Your task to perform on an android device: allow cookies in the chrome app Image 0: 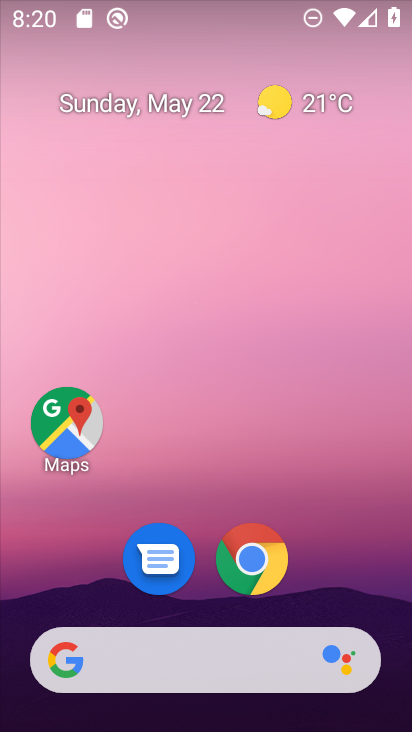
Step 0: drag from (227, 698) to (243, 371)
Your task to perform on an android device: allow cookies in the chrome app Image 1: 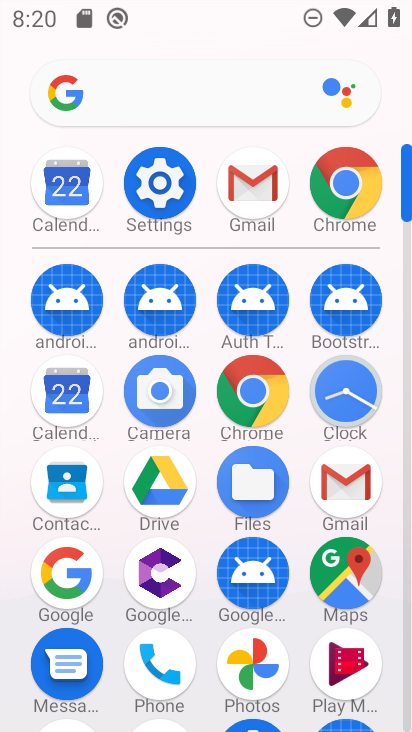
Step 1: click (355, 177)
Your task to perform on an android device: allow cookies in the chrome app Image 2: 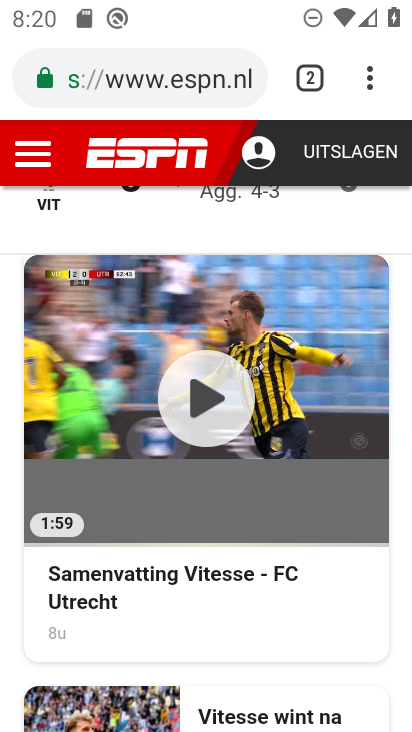
Step 2: click (363, 77)
Your task to perform on an android device: allow cookies in the chrome app Image 3: 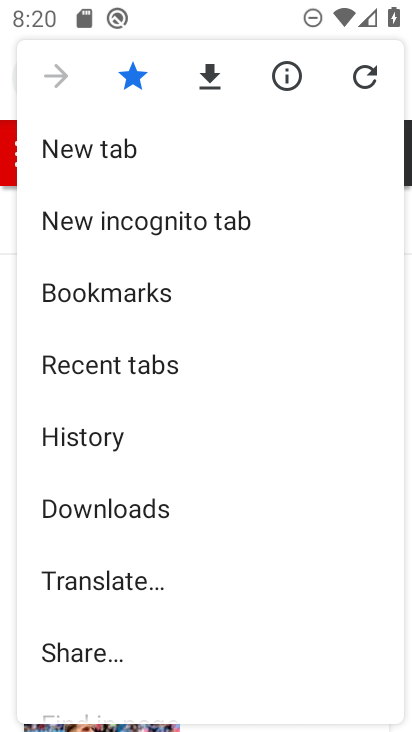
Step 3: drag from (102, 626) to (128, 373)
Your task to perform on an android device: allow cookies in the chrome app Image 4: 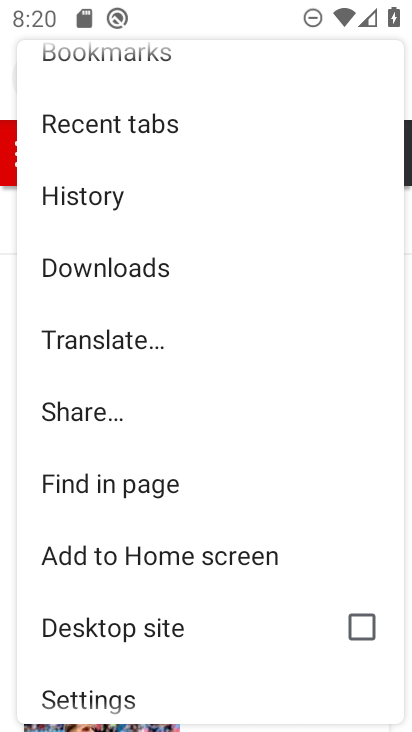
Step 4: click (134, 693)
Your task to perform on an android device: allow cookies in the chrome app Image 5: 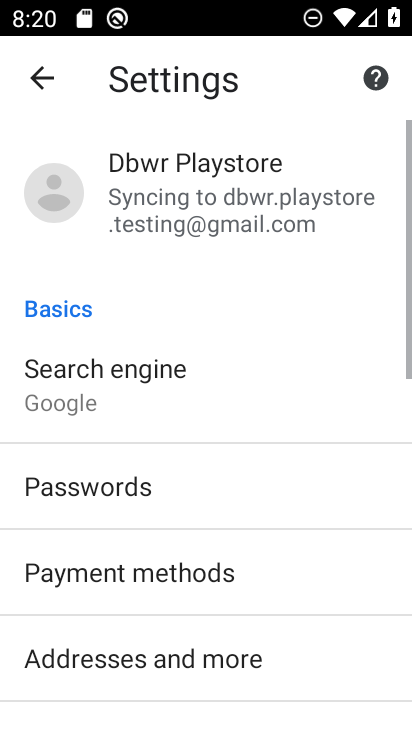
Step 5: drag from (167, 644) to (138, 309)
Your task to perform on an android device: allow cookies in the chrome app Image 6: 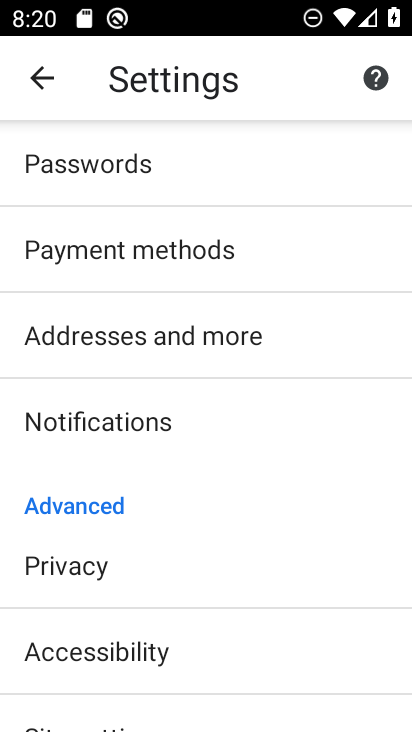
Step 6: drag from (178, 571) to (117, 224)
Your task to perform on an android device: allow cookies in the chrome app Image 7: 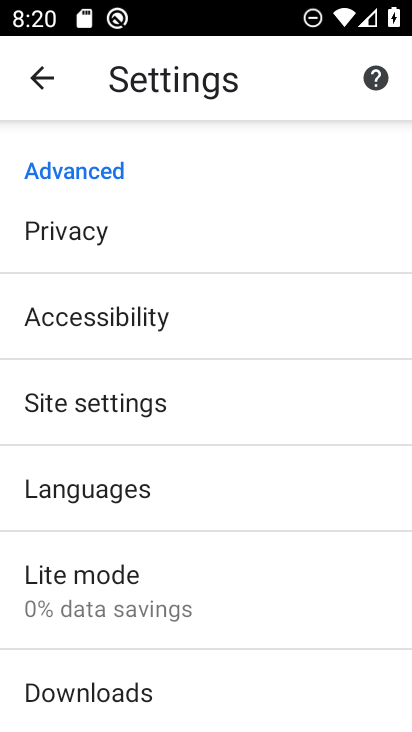
Step 7: drag from (180, 568) to (139, 348)
Your task to perform on an android device: allow cookies in the chrome app Image 8: 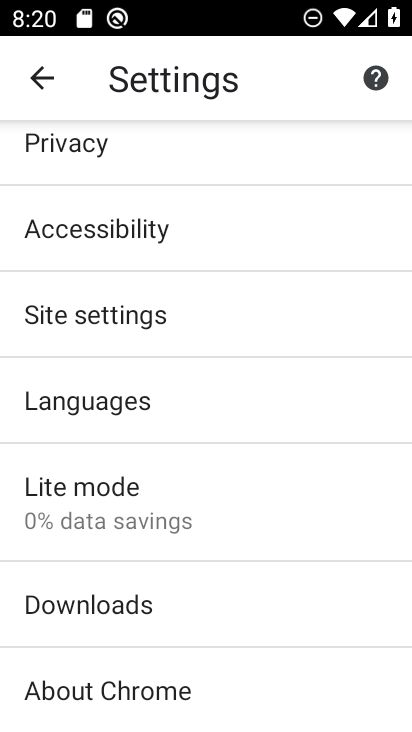
Step 8: click (89, 314)
Your task to perform on an android device: allow cookies in the chrome app Image 9: 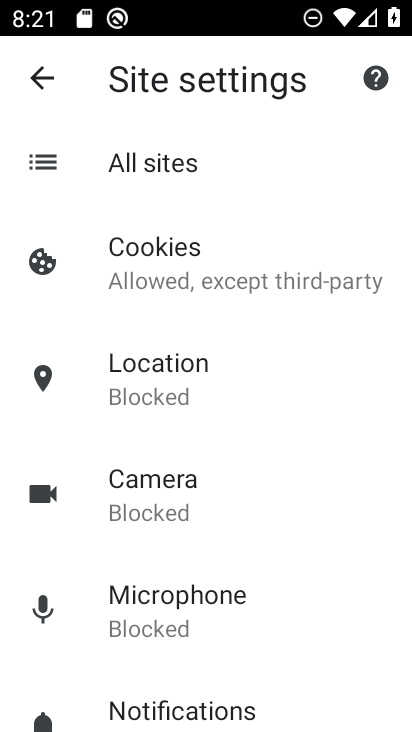
Step 9: click (160, 271)
Your task to perform on an android device: allow cookies in the chrome app Image 10: 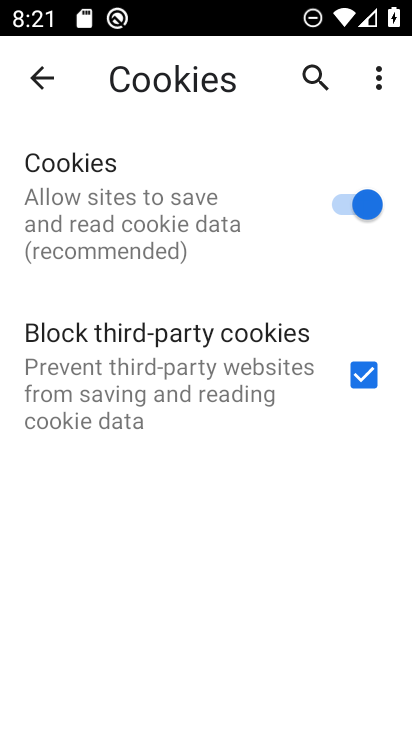
Step 10: task complete